Your task to perform on an android device: Open Google Chrome and click the shortcut for Amazon.com Image 0: 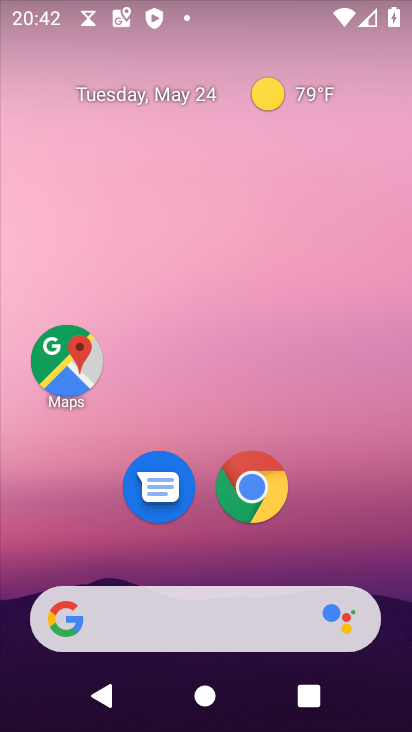
Step 0: press home button
Your task to perform on an android device: Open Google Chrome and click the shortcut for Amazon.com Image 1: 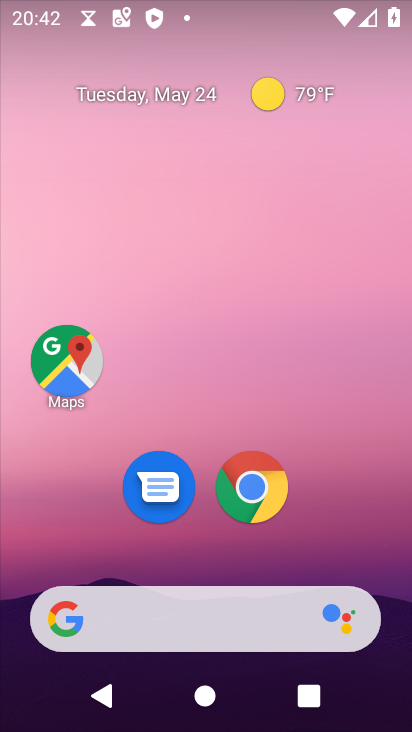
Step 1: click (239, 496)
Your task to perform on an android device: Open Google Chrome and click the shortcut for Amazon.com Image 2: 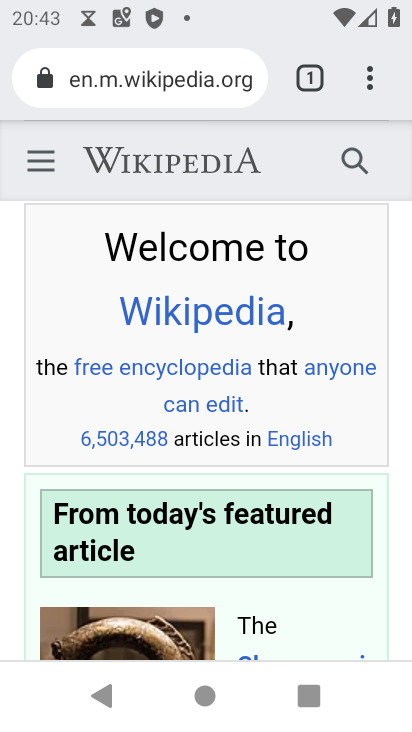
Step 2: click (311, 92)
Your task to perform on an android device: Open Google Chrome and click the shortcut for Amazon.com Image 3: 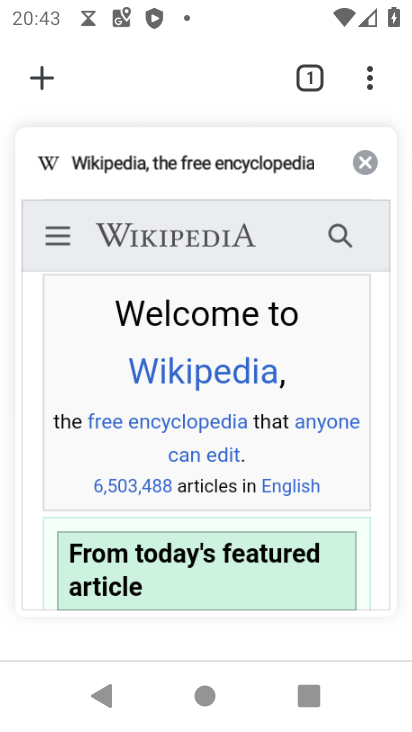
Step 3: click (41, 80)
Your task to perform on an android device: Open Google Chrome and click the shortcut for Amazon.com Image 4: 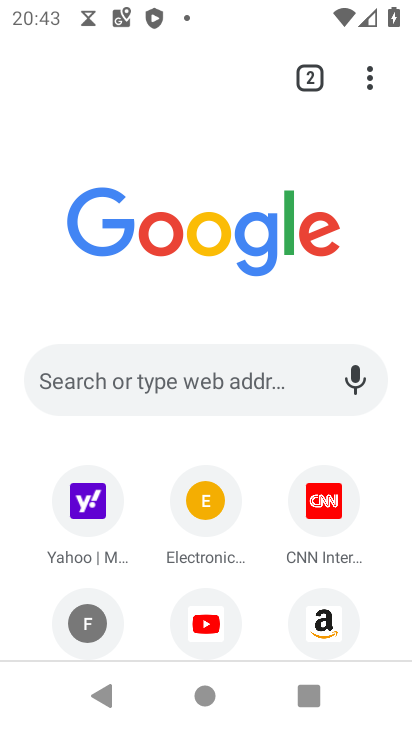
Step 4: click (317, 623)
Your task to perform on an android device: Open Google Chrome and click the shortcut for Amazon.com Image 5: 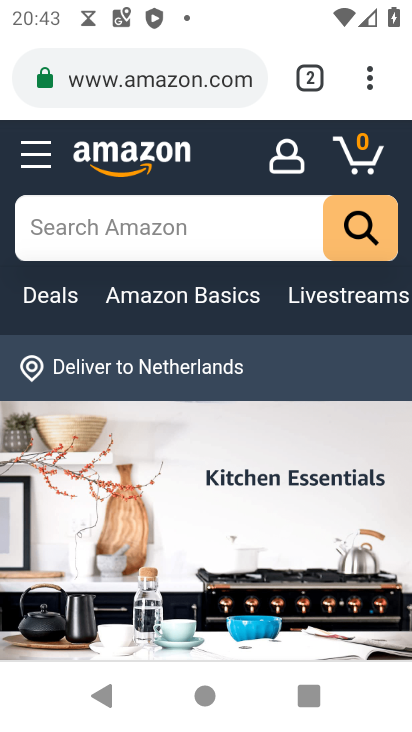
Step 5: task complete